Your task to perform on an android device: open app "Booking.com: Hotels and more" (install if not already installed) Image 0: 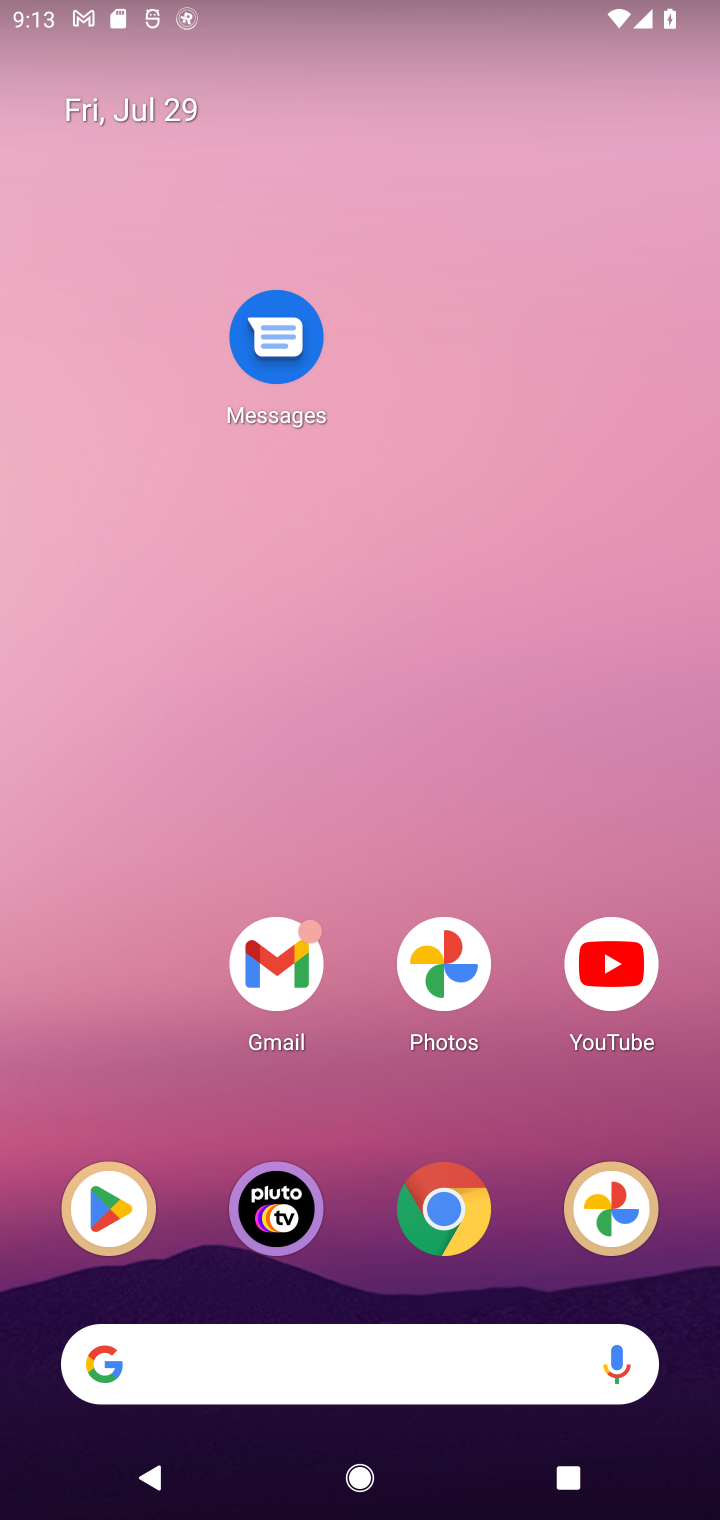
Step 0: drag from (236, 1342) to (360, 239)
Your task to perform on an android device: open app "Booking.com: Hotels and more" (install if not already installed) Image 1: 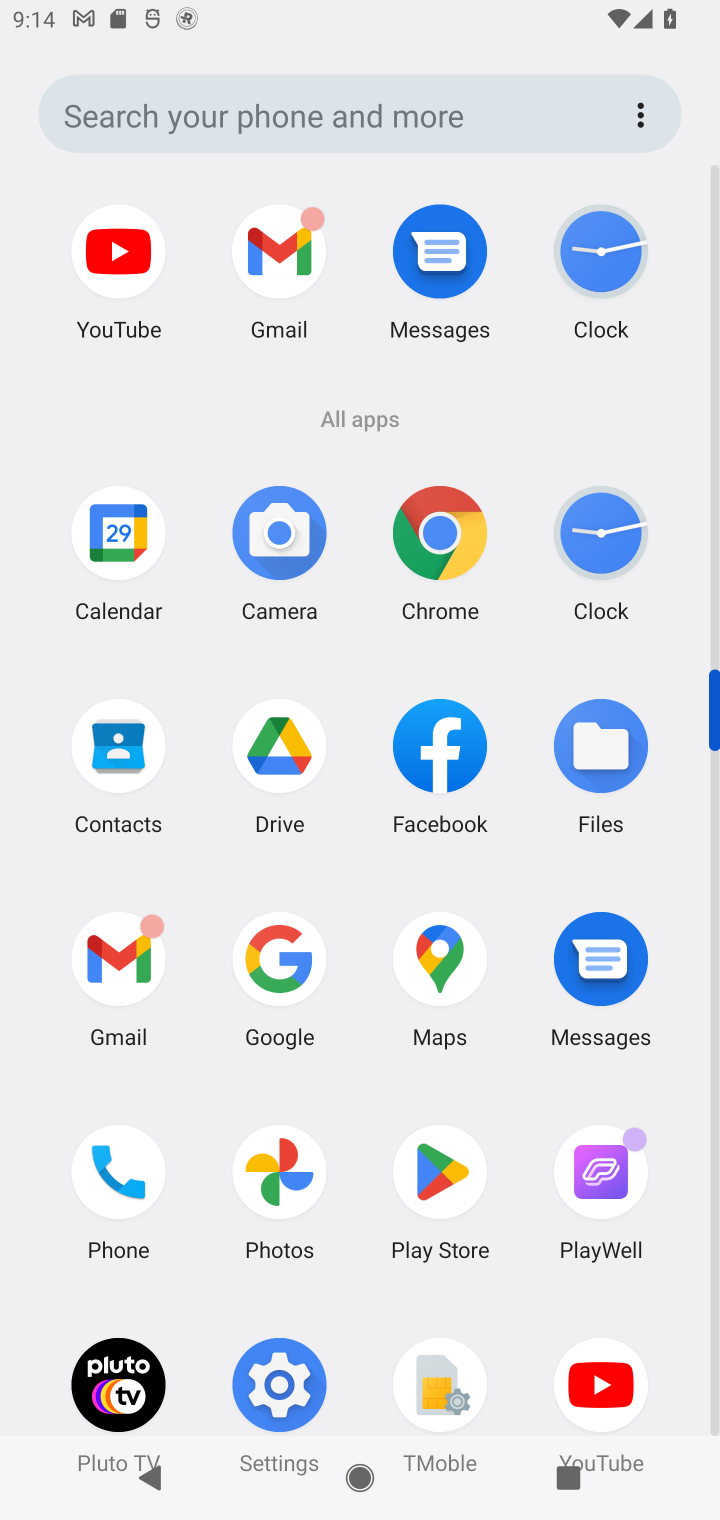
Step 1: click (434, 1168)
Your task to perform on an android device: open app "Booking.com: Hotels and more" (install if not already installed) Image 2: 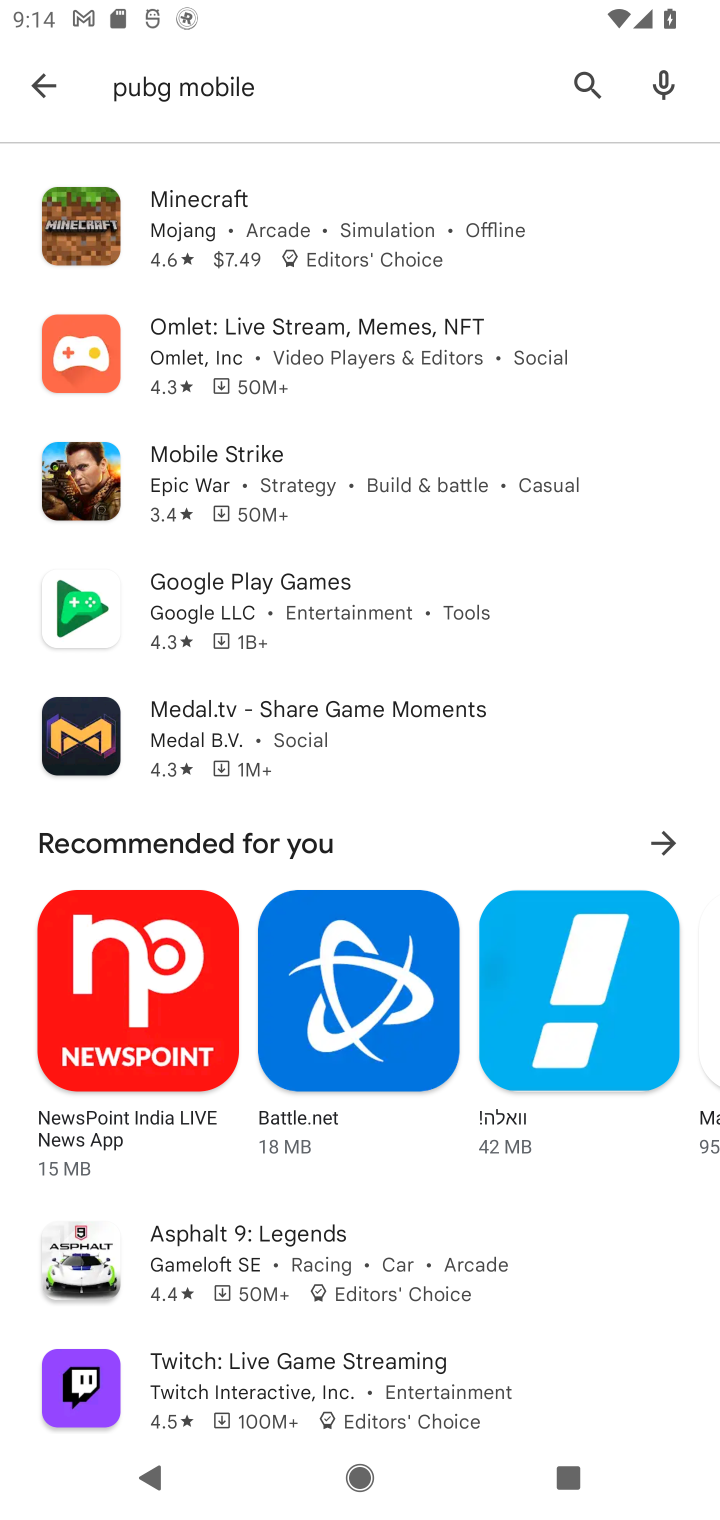
Step 2: click (535, 95)
Your task to perform on an android device: open app "Booking.com: Hotels and more" (install if not already installed) Image 3: 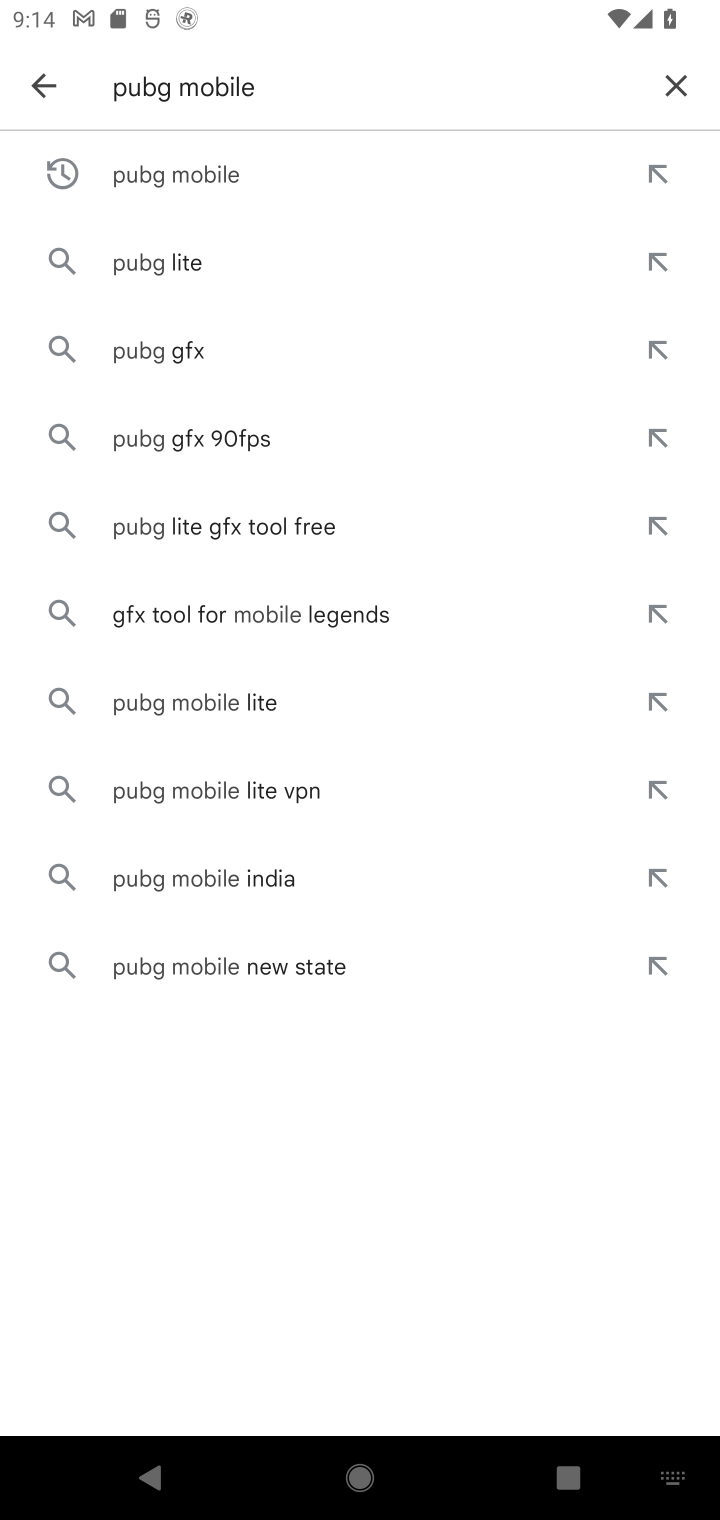
Step 3: click (675, 73)
Your task to perform on an android device: open app "Booking.com: Hotels and more" (install if not already installed) Image 4: 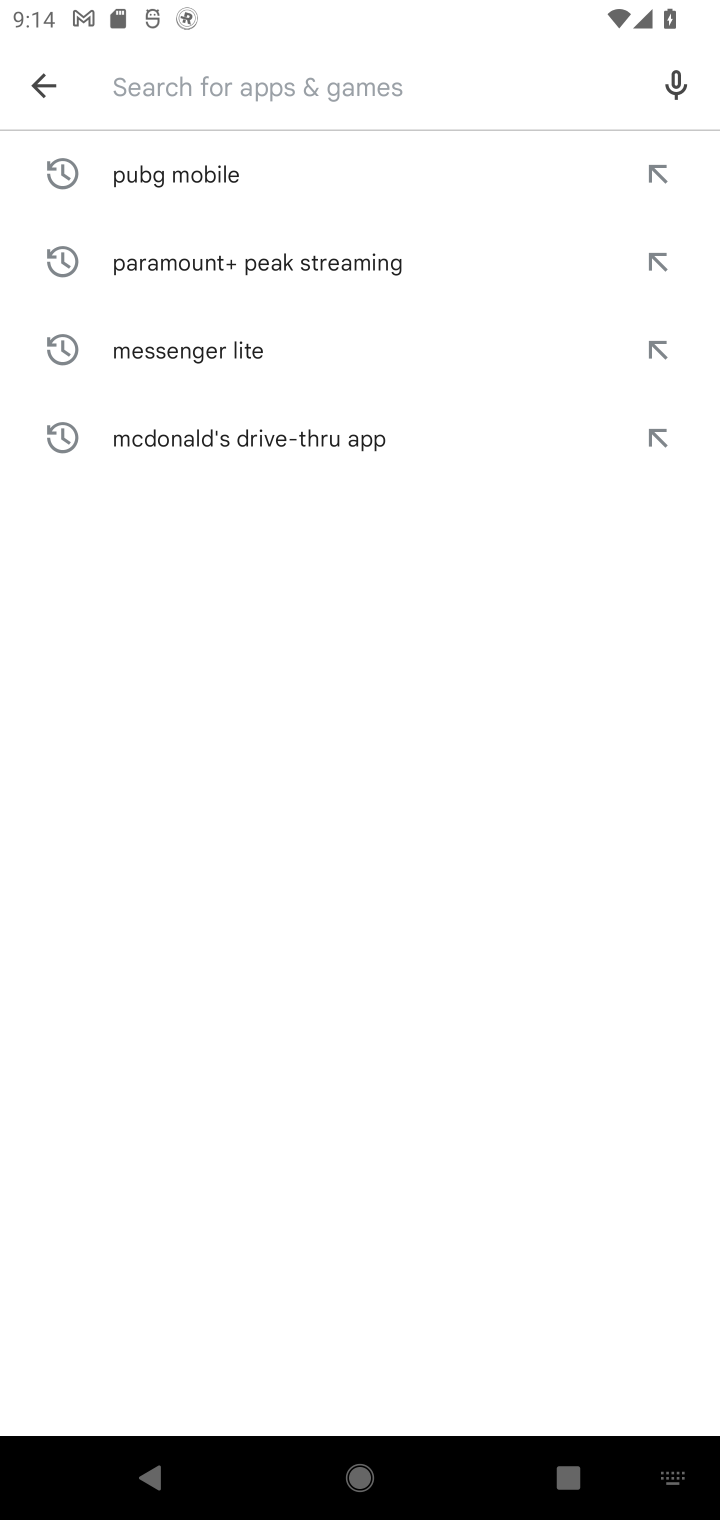
Step 4: click (255, 58)
Your task to perform on an android device: open app "Booking.com: Hotels and more" (install if not already installed) Image 5: 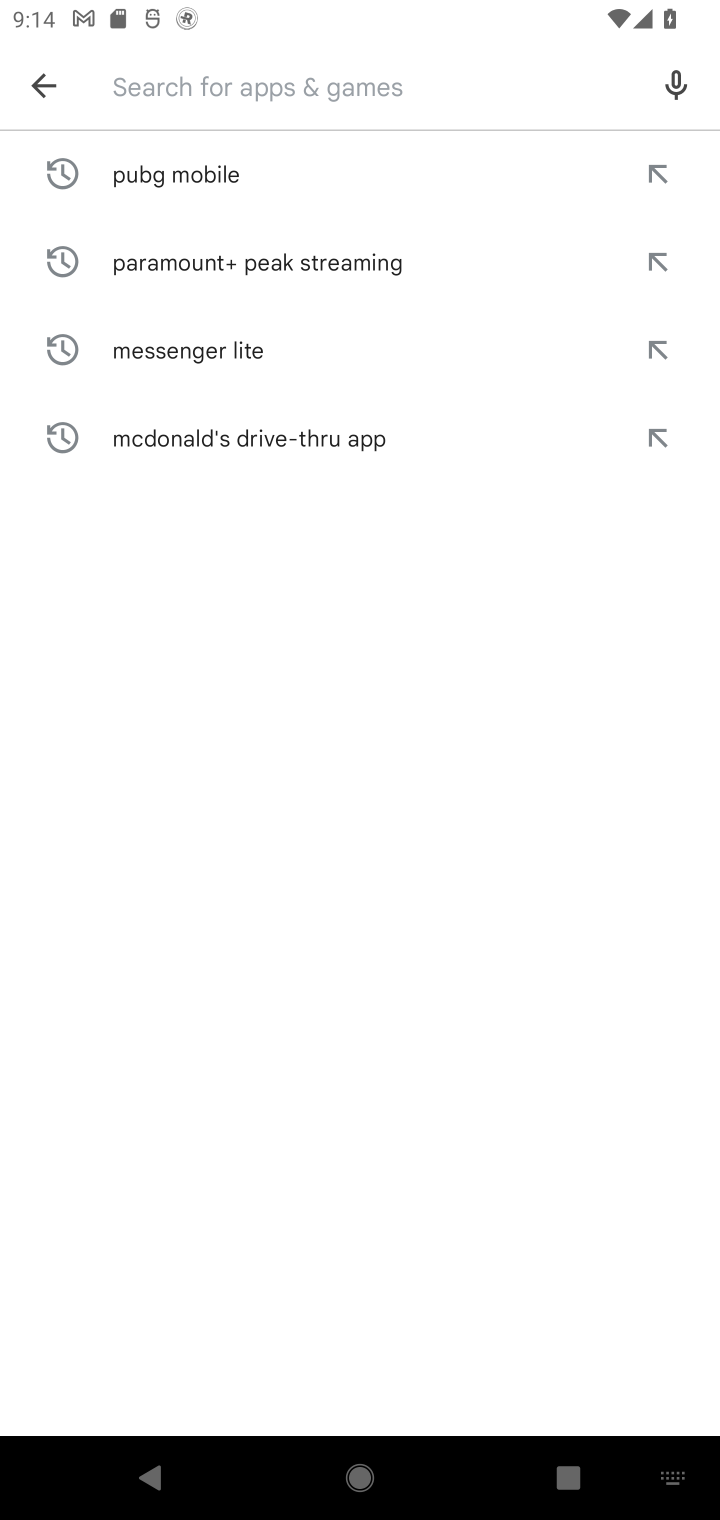
Step 5: type "Booking.com: Hotels and more"
Your task to perform on an android device: open app "Booking.com: Hotels and more" (install if not already installed) Image 6: 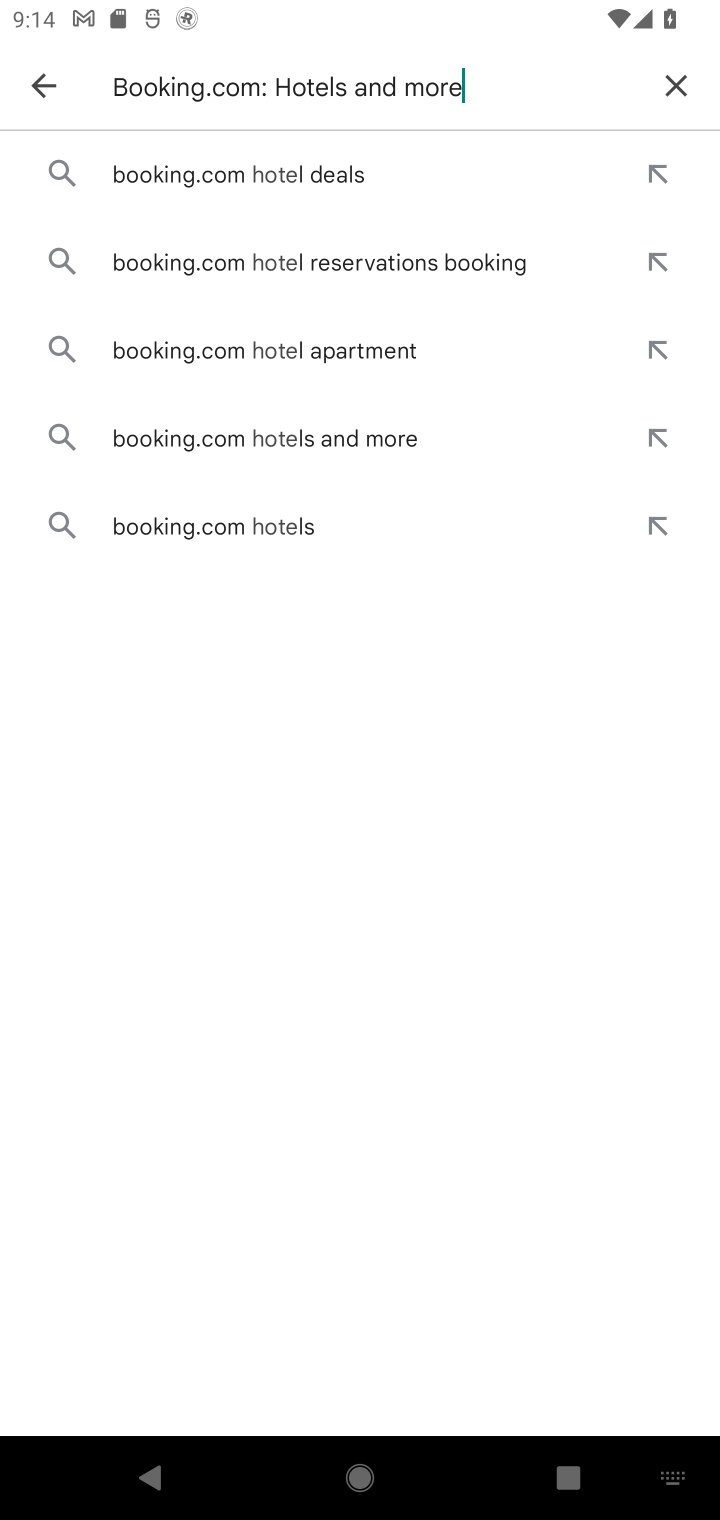
Step 6: type ""
Your task to perform on an android device: open app "Booking.com: Hotels and more" (install if not already installed) Image 7: 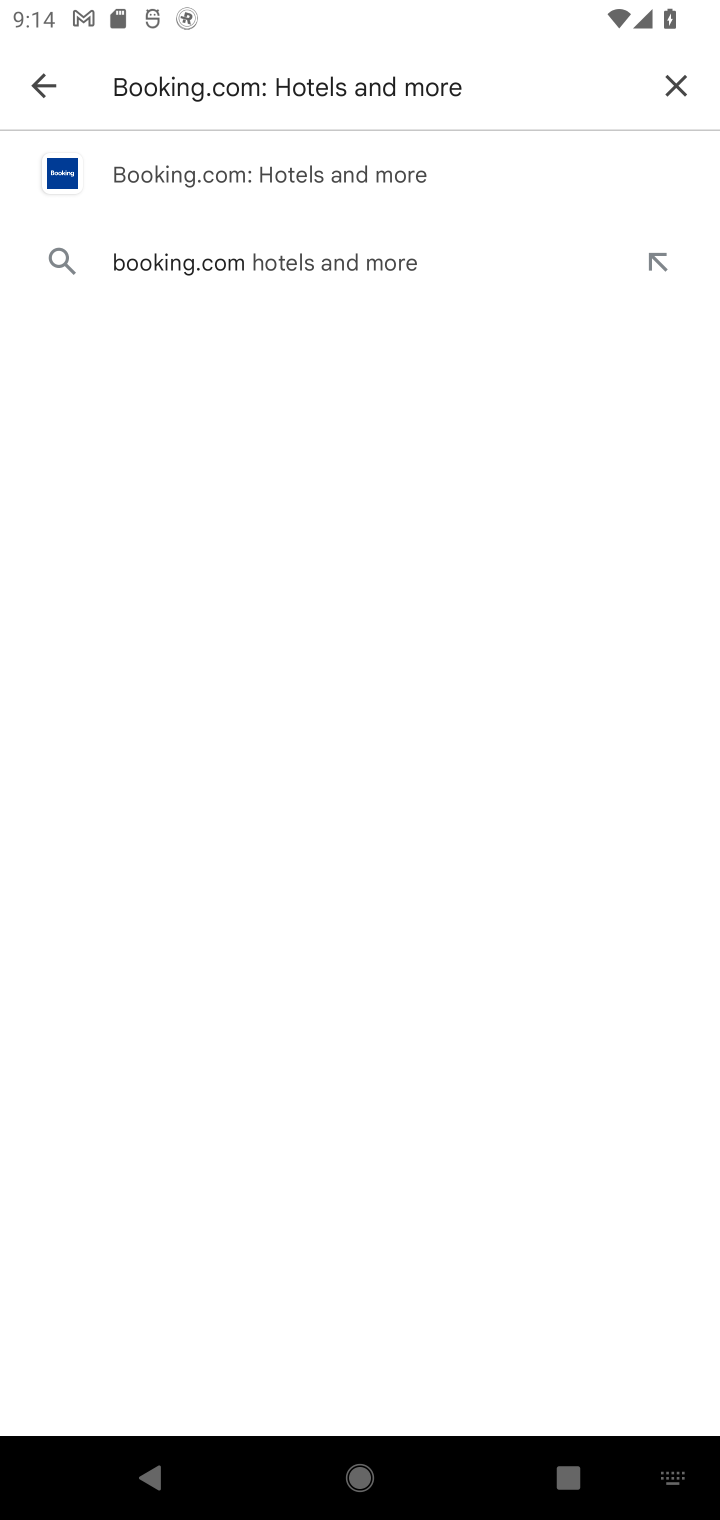
Step 7: click (363, 185)
Your task to perform on an android device: open app "Booking.com: Hotels and more" (install if not already installed) Image 8: 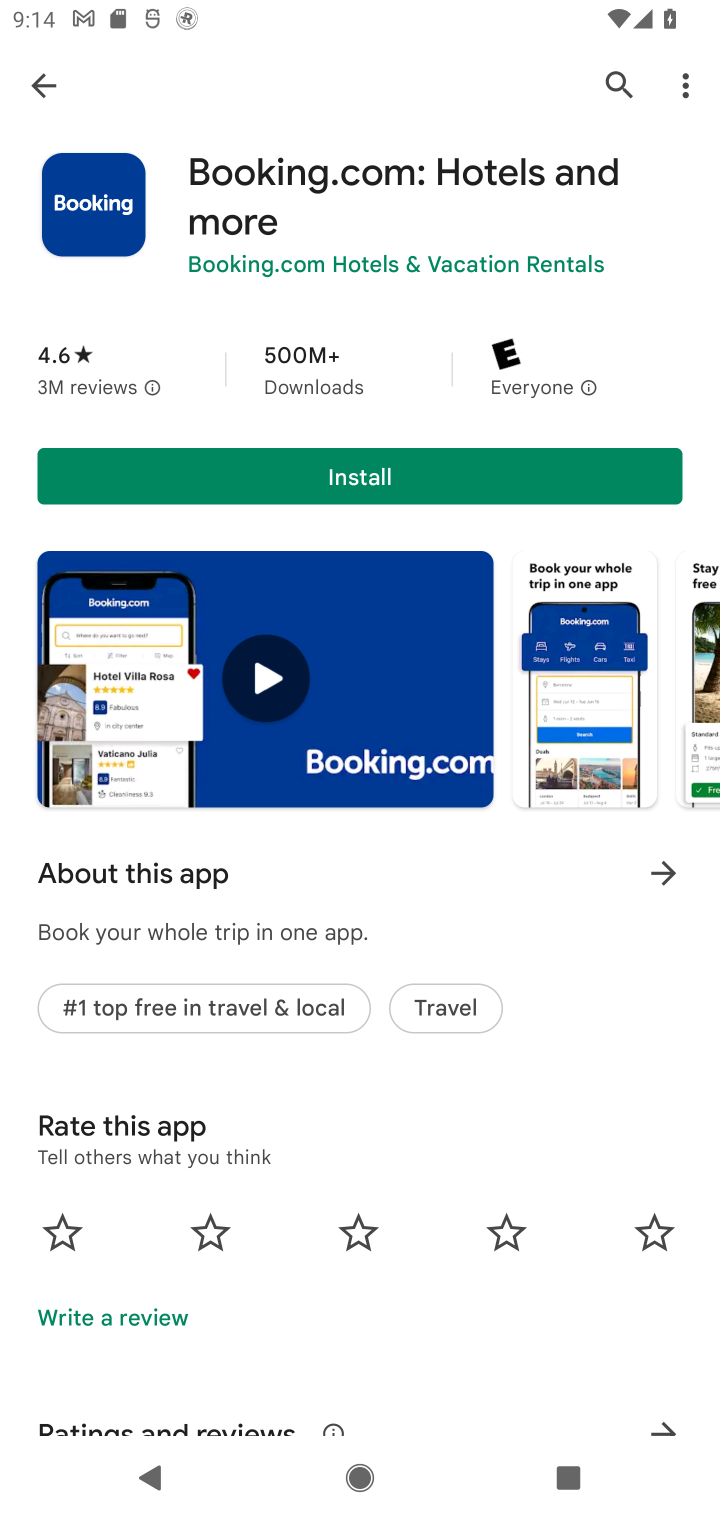
Step 8: click (421, 472)
Your task to perform on an android device: open app "Booking.com: Hotels and more" (install if not already installed) Image 9: 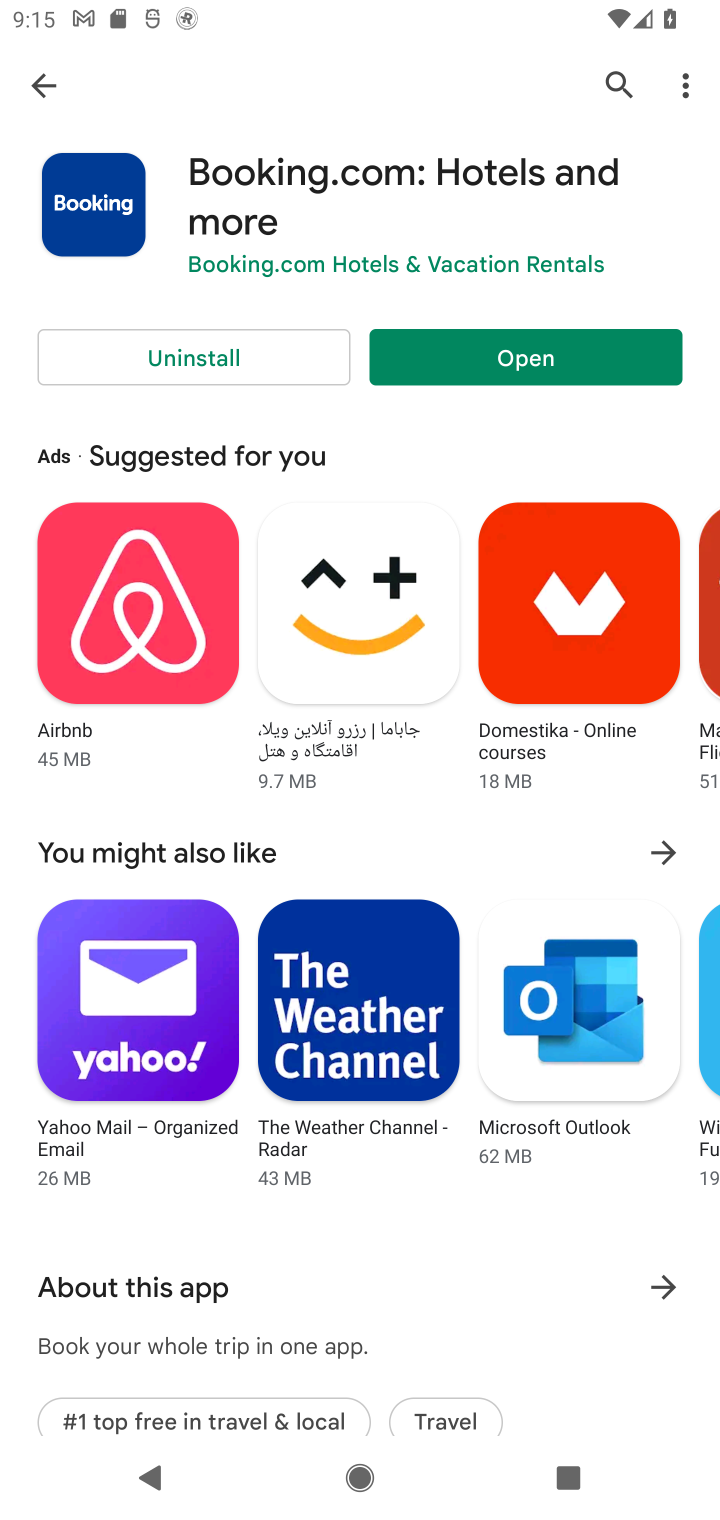
Step 9: click (575, 359)
Your task to perform on an android device: open app "Booking.com: Hotels and more" (install if not already installed) Image 10: 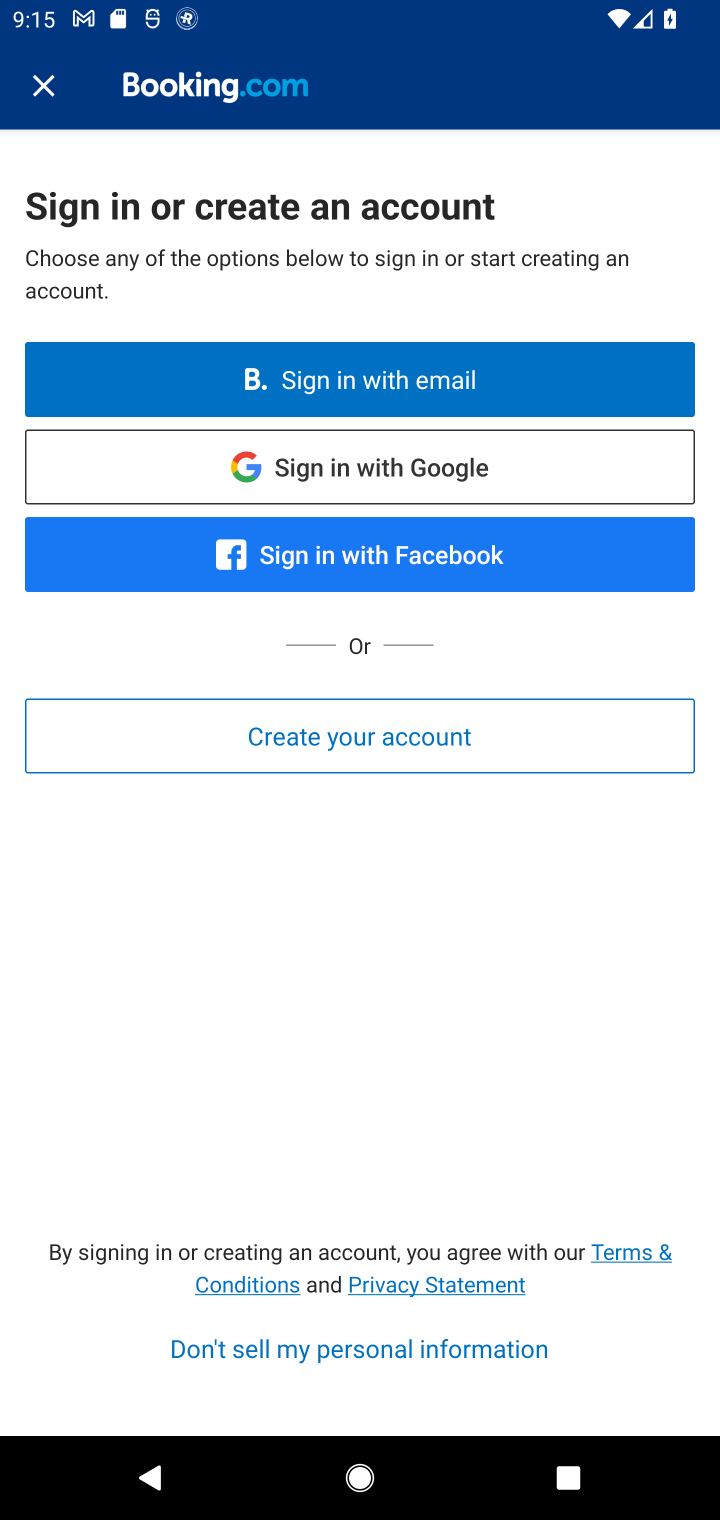
Step 10: task complete